Your task to perform on an android device: change notifications settings Image 0: 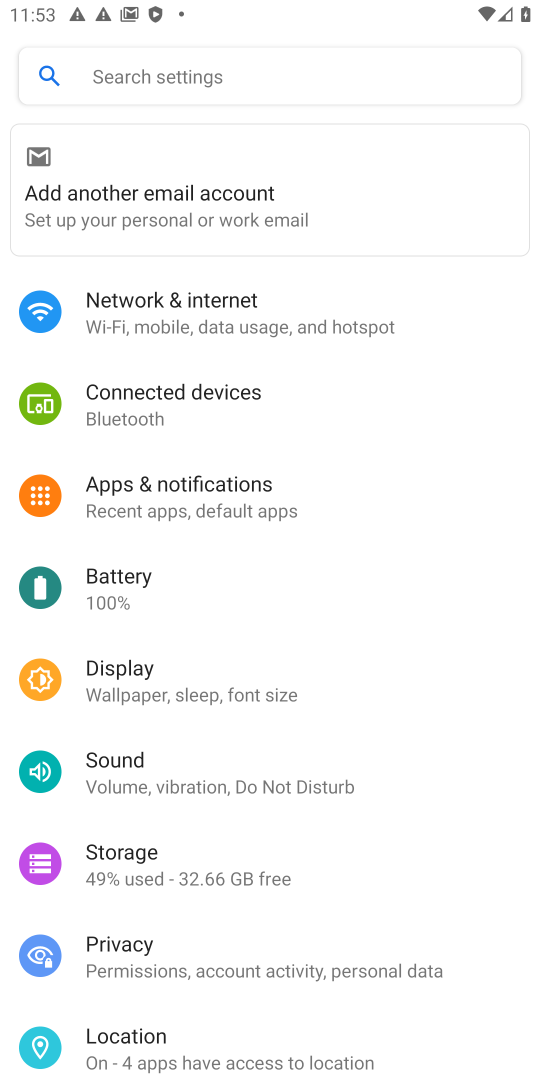
Step 0: click (115, 497)
Your task to perform on an android device: change notifications settings Image 1: 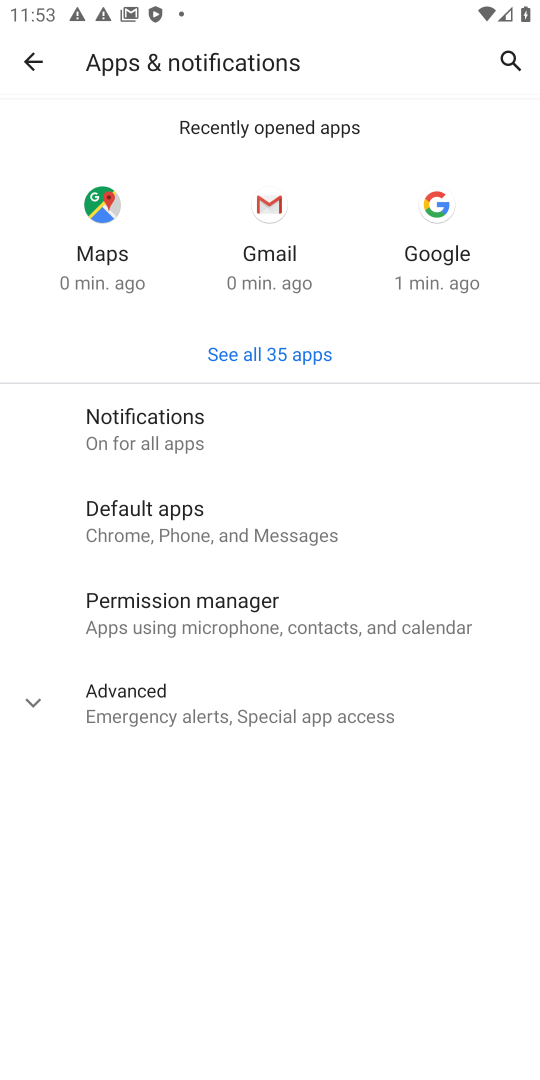
Step 1: click (133, 447)
Your task to perform on an android device: change notifications settings Image 2: 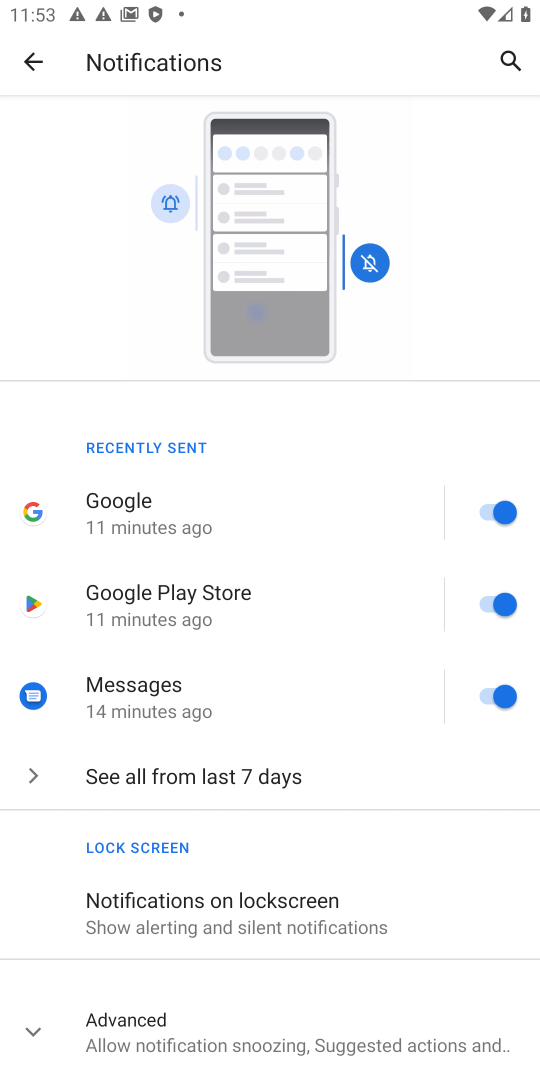
Step 2: click (143, 778)
Your task to perform on an android device: change notifications settings Image 3: 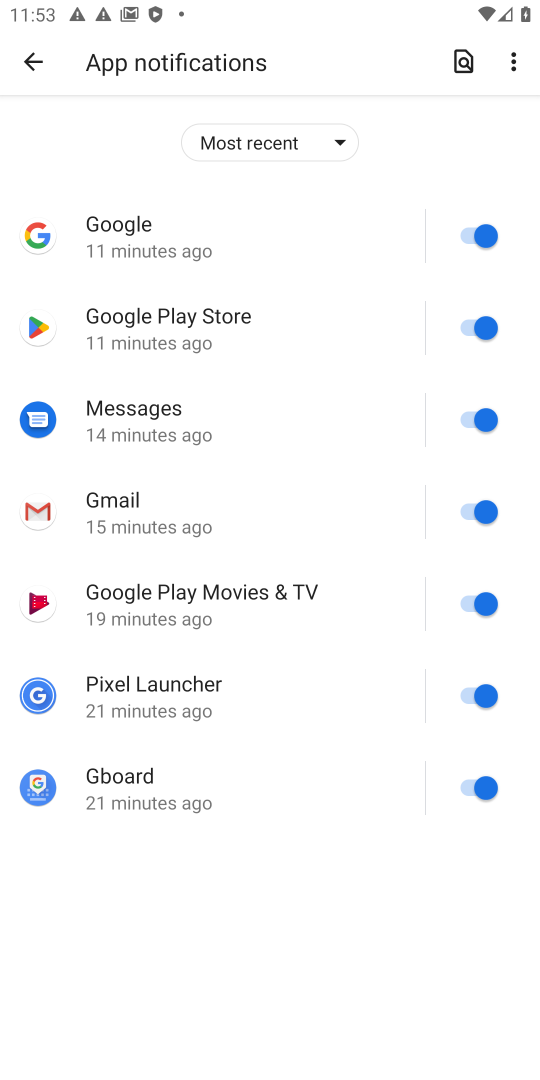
Step 3: click (272, 133)
Your task to perform on an android device: change notifications settings Image 4: 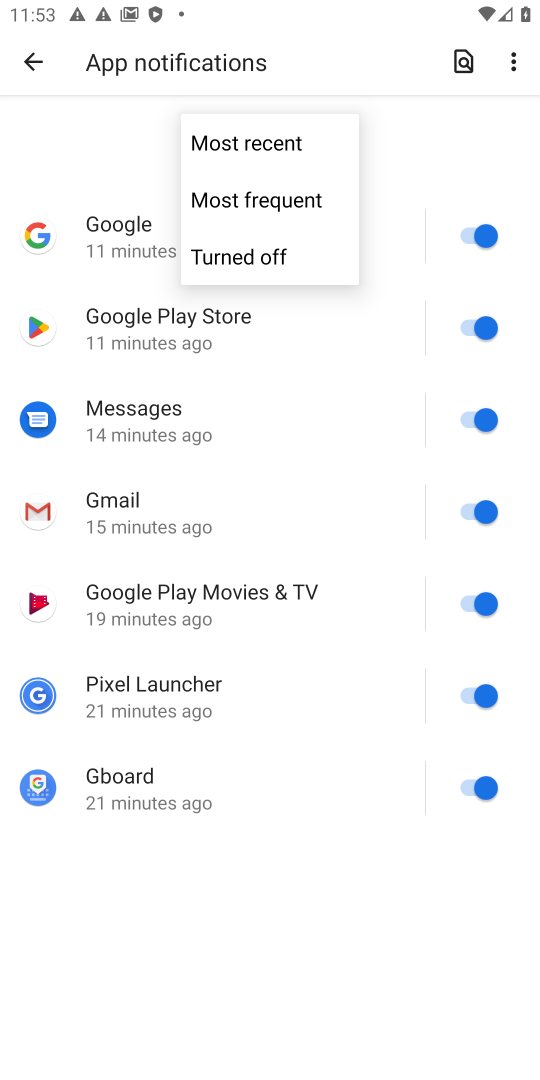
Step 4: click (269, 210)
Your task to perform on an android device: change notifications settings Image 5: 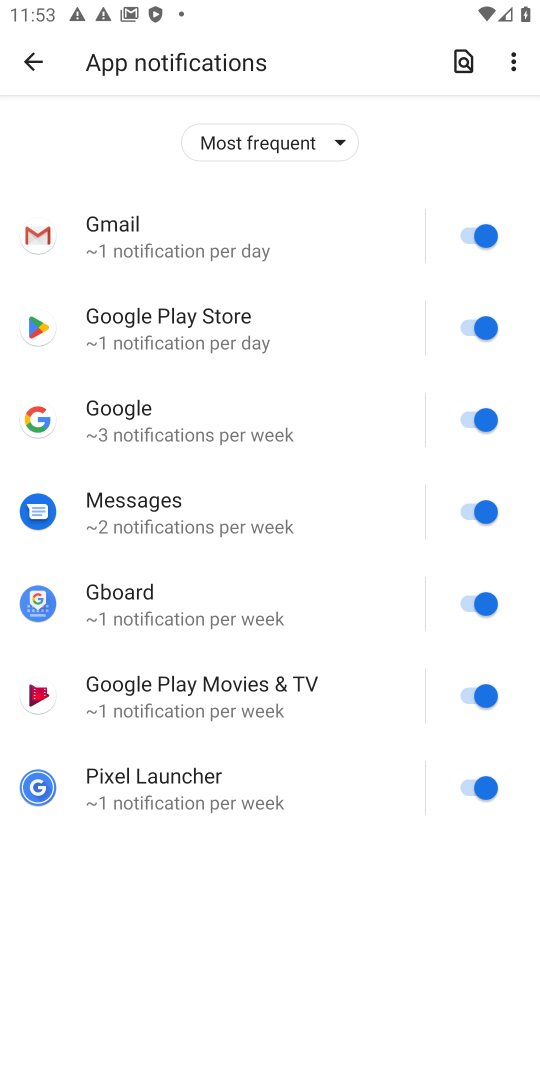
Step 5: task complete